Your task to perform on an android device: open app "NewsBreak: Local News & Alerts" Image 0: 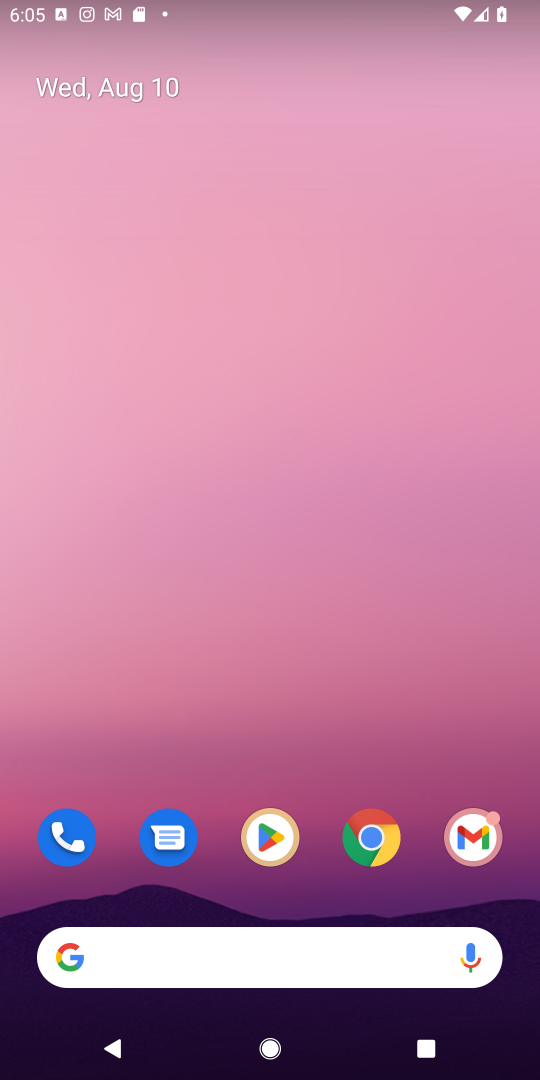
Step 0: press home button
Your task to perform on an android device: open app "NewsBreak: Local News & Alerts" Image 1: 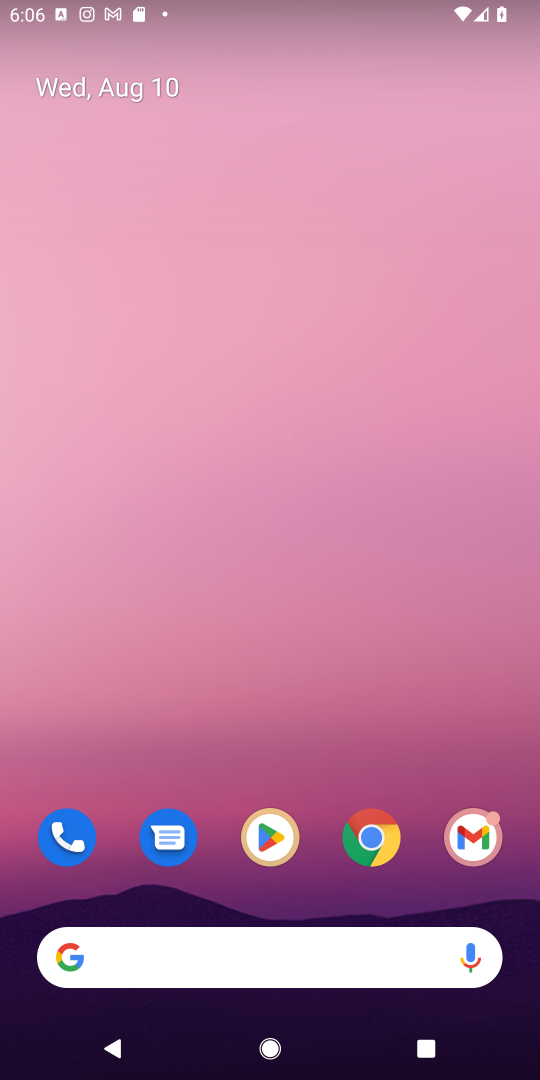
Step 1: click (267, 848)
Your task to perform on an android device: open app "NewsBreak: Local News & Alerts" Image 2: 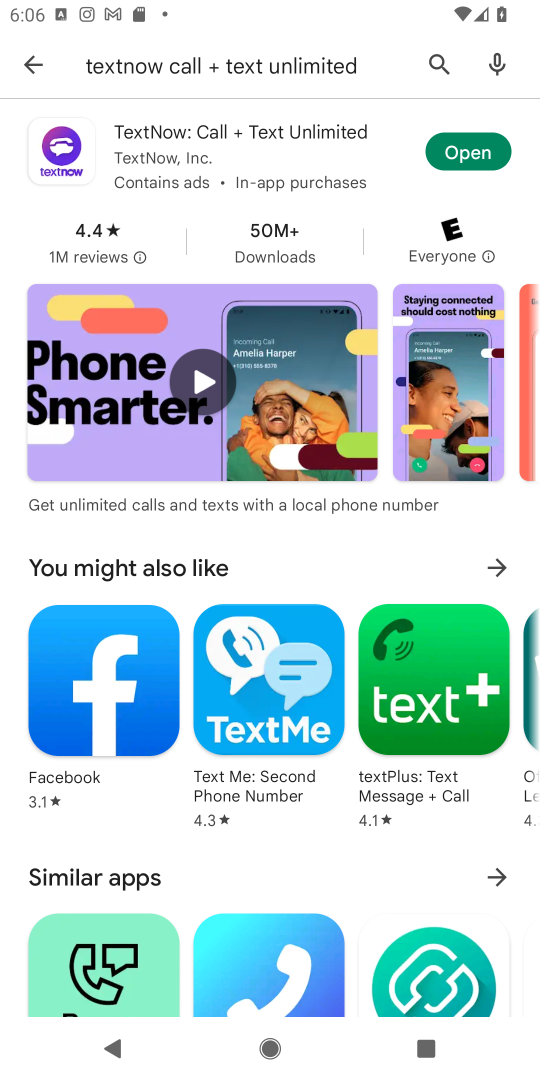
Step 2: click (431, 58)
Your task to perform on an android device: open app "NewsBreak: Local News & Alerts" Image 3: 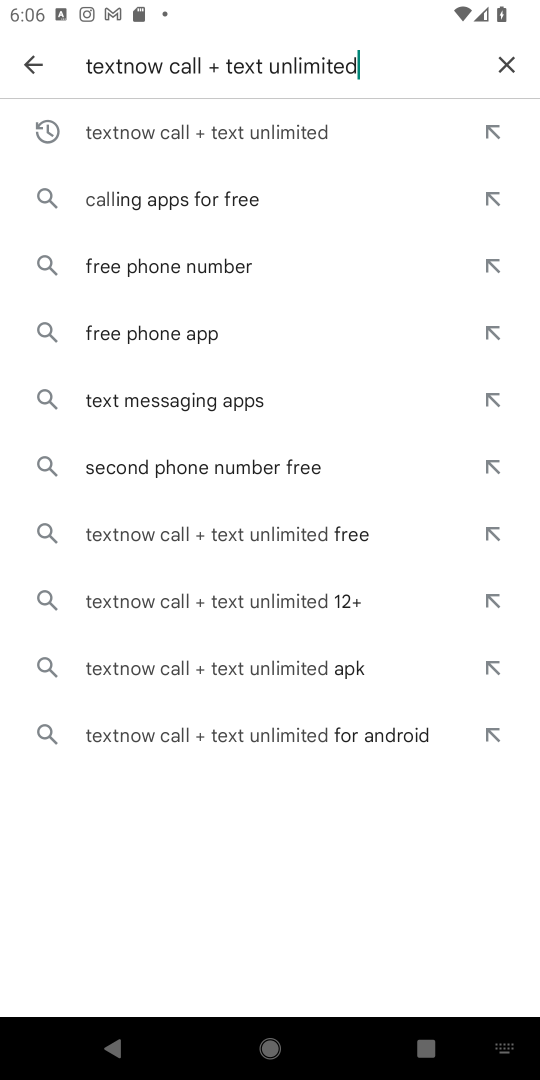
Step 3: click (501, 64)
Your task to perform on an android device: open app "NewsBreak: Local News & Alerts" Image 4: 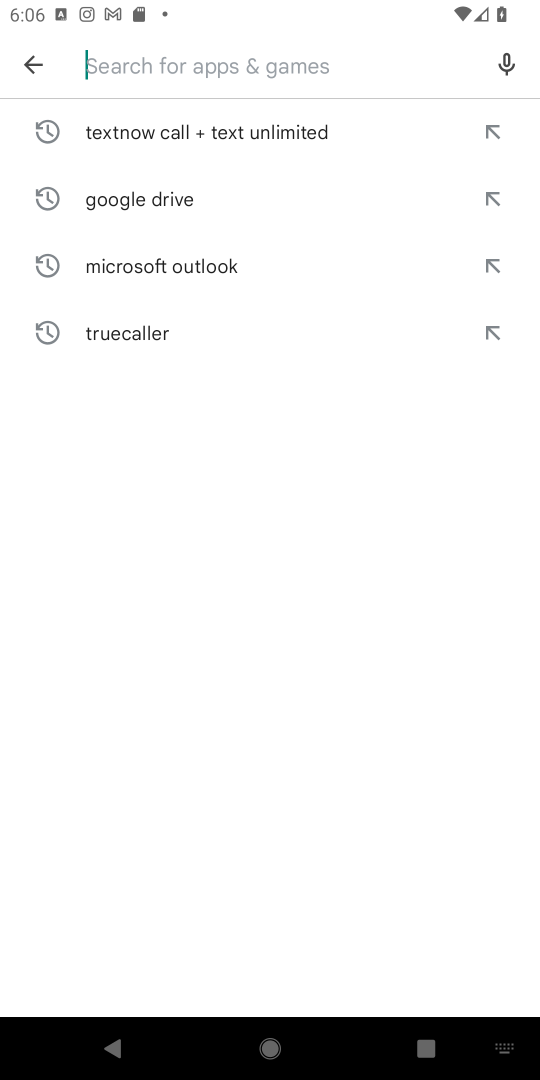
Step 4: type "NewsBreak: Local News & Alerts"
Your task to perform on an android device: open app "NewsBreak: Local News & Alerts" Image 5: 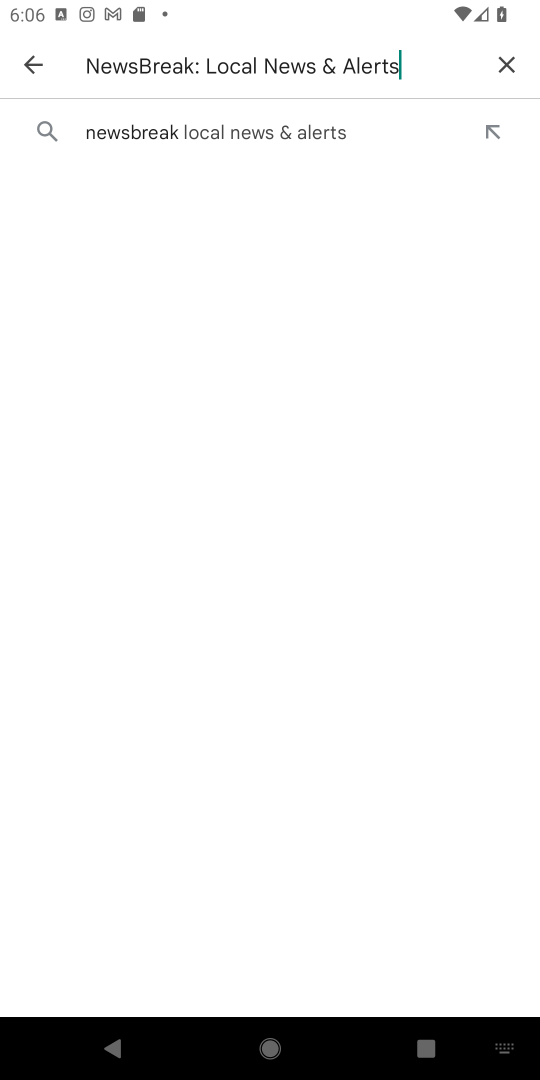
Step 5: click (242, 137)
Your task to perform on an android device: open app "NewsBreak: Local News & Alerts" Image 6: 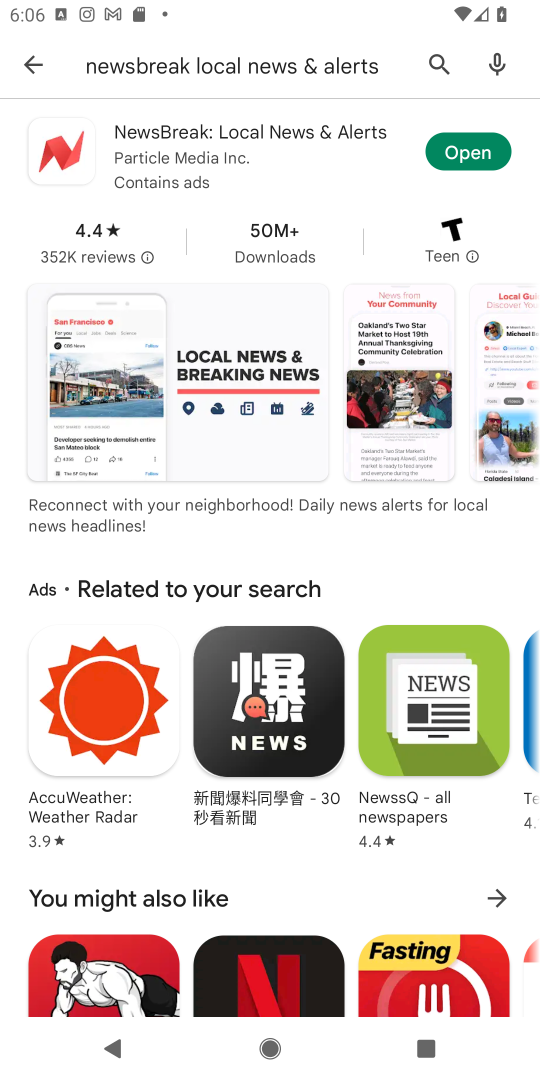
Step 6: click (483, 156)
Your task to perform on an android device: open app "NewsBreak: Local News & Alerts" Image 7: 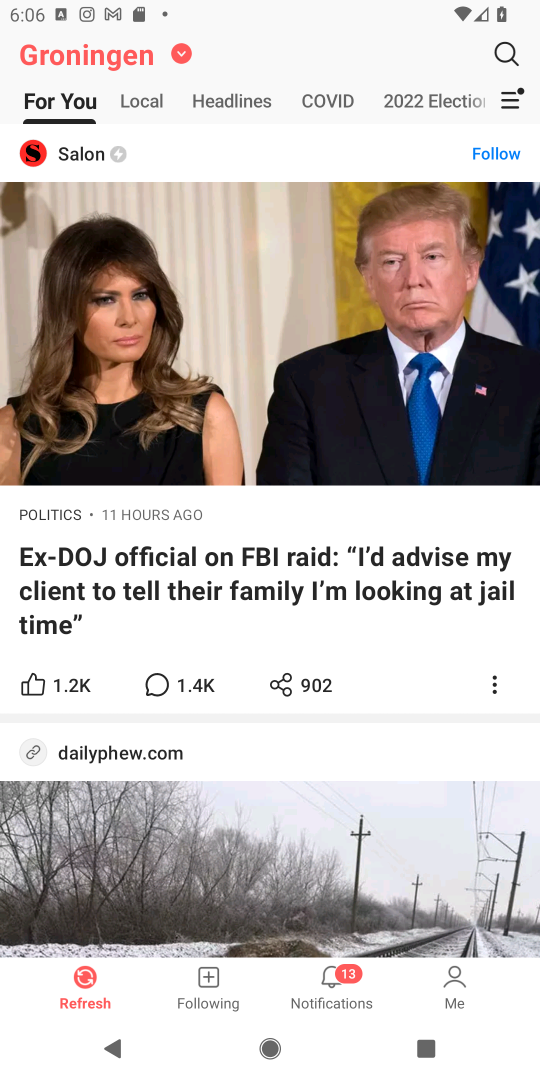
Step 7: task complete